Your task to perform on an android device: stop showing notifications on the lock screen Image 0: 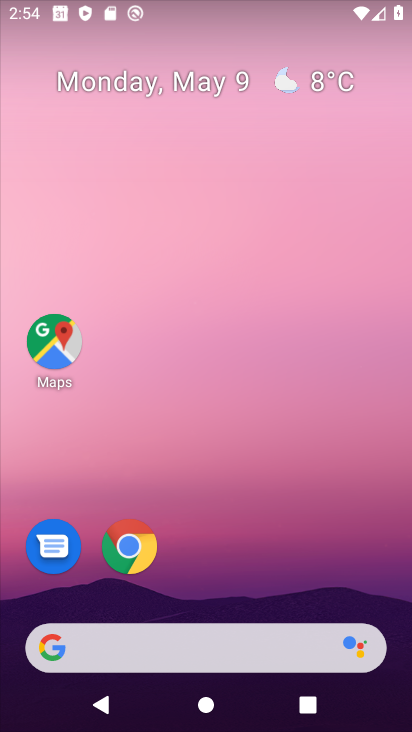
Step 0: drag from (274, 567) to (220, 6)
Your task to perform on an android device: stop showing notifications on the lock screen Image 1: 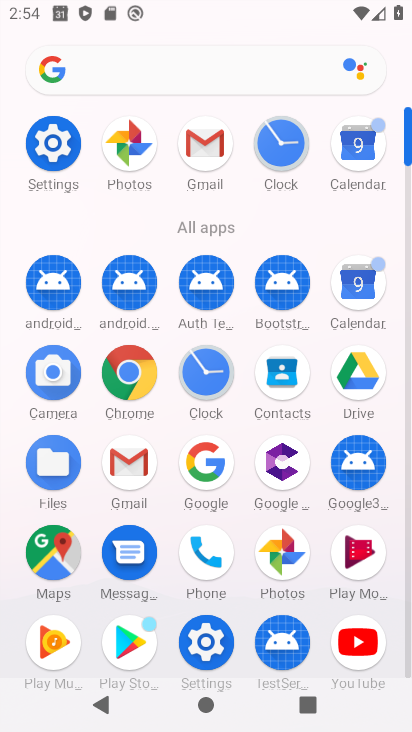
Step 1: click (49, 130)
Your task to perform on an android device: stop showing notifications on the lock screen Image 2: 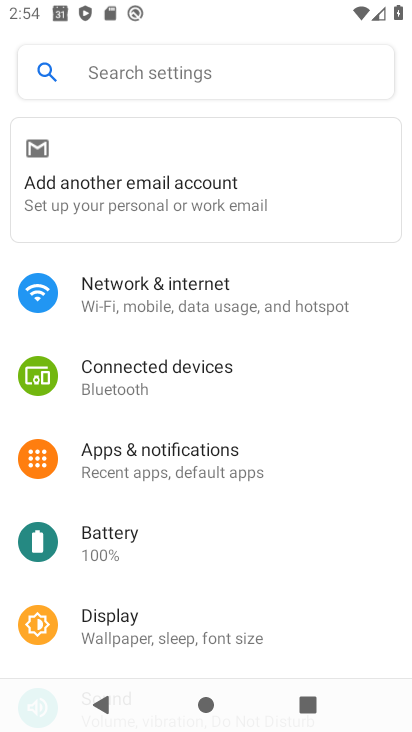
Step 2: click (194, 464)
Your task to perform on an android device: stop showing notifications on the lock screen Image 3: 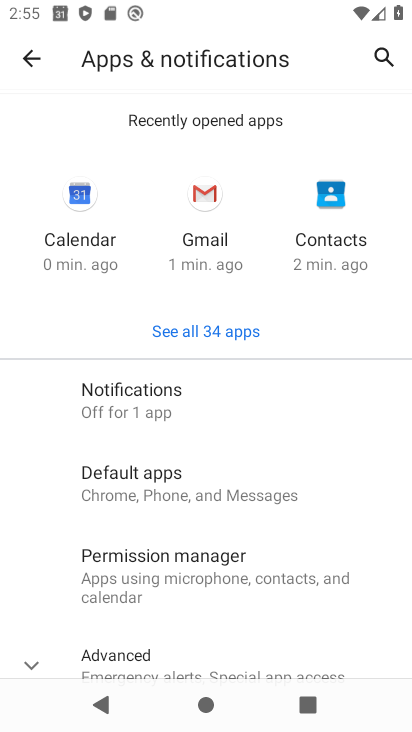
Step 3: click (150, 396)
Your task to perform on an android device: stop showing notifications on the lock screen Image 4: 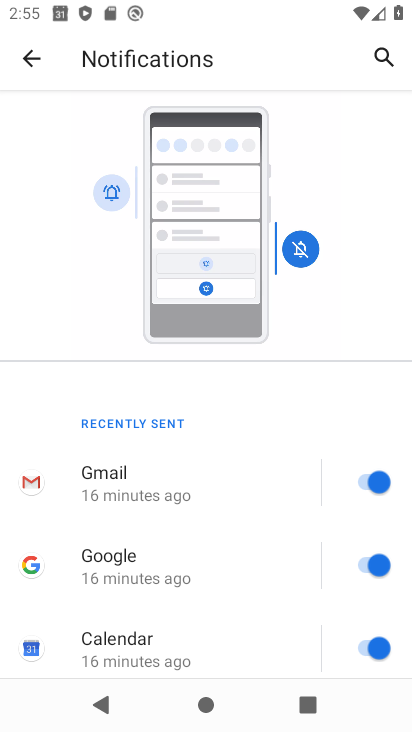
Step 4: drag from (261, 651) to (248, 169)
Your task to perform on an android device: stop showing notifications on the lock screen Image 5: 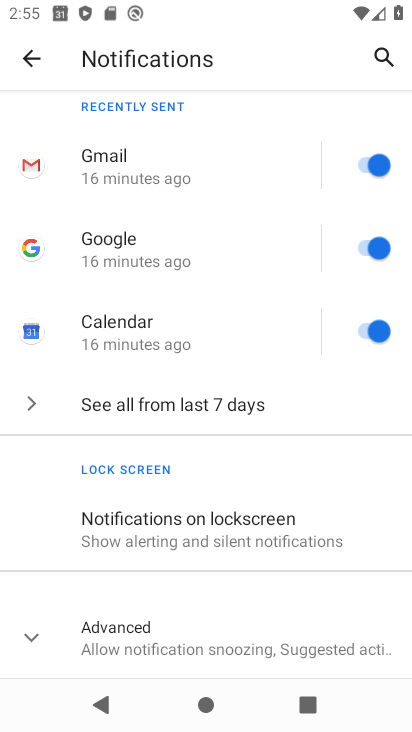
Step 5: click (234, 543)
Your task to perform on an android device: stop showing notifications on the lock screen Image 6: 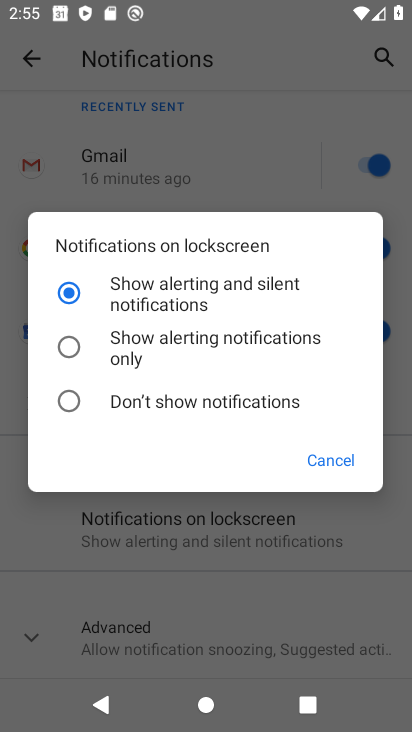
Step 6: click (60, 391)
Your task to perform on an android device: stop showing notifications on the lock screen Image 7: 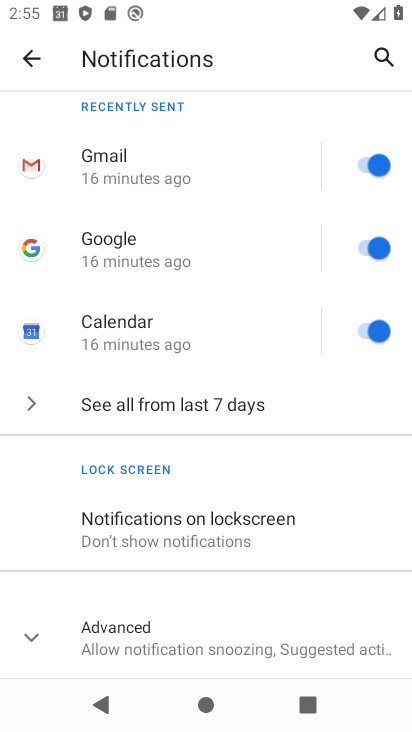
Step 7: task complete